Your task to perform on an android device: Search for seafood restaurants on Google Maps Image 0: 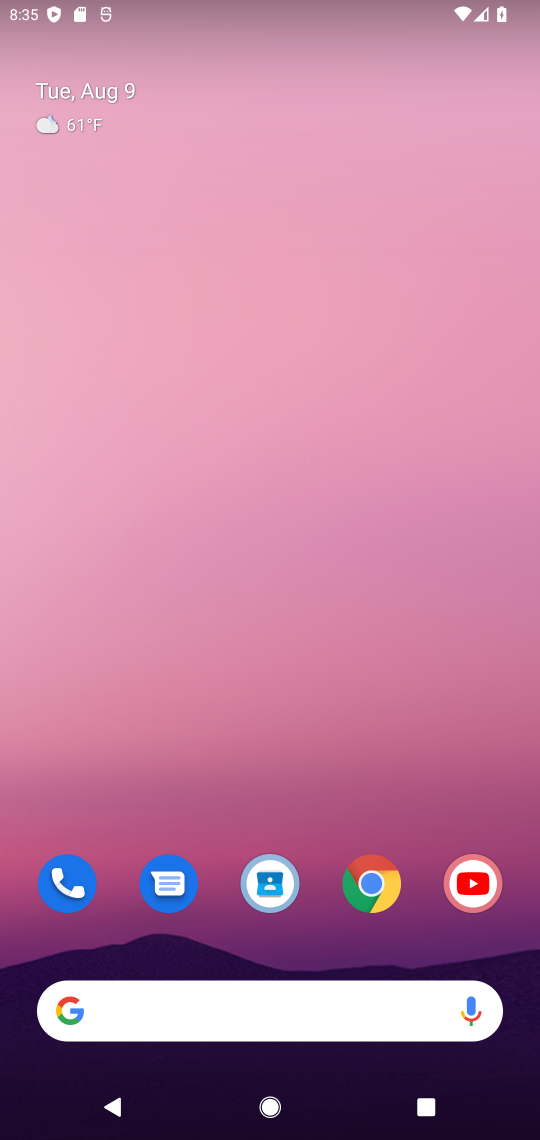
Step 0: drag from (387, 770) to (391, 58)
Your task to perform on an android device: Search for seafood restaurants on Google Maps Image 1: 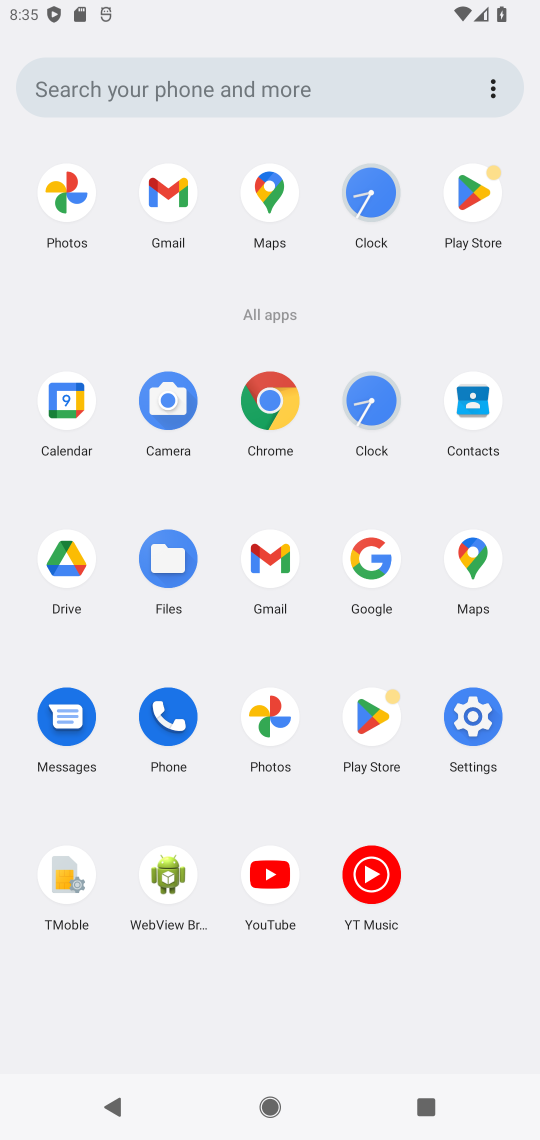
Step 1: click (465, 548)
Your task to perform on an android device: Search for seafood restaurants on Google Maps Image 2: 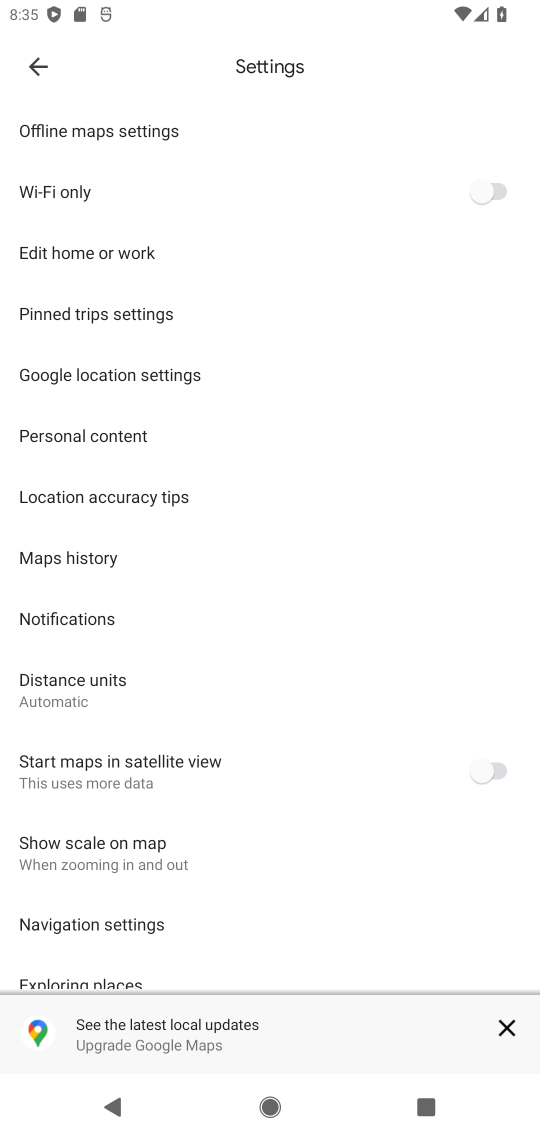
Step 2: press back button
Your task to perform on an android device: Search for seafood restaurants on Google Maps Image 3: 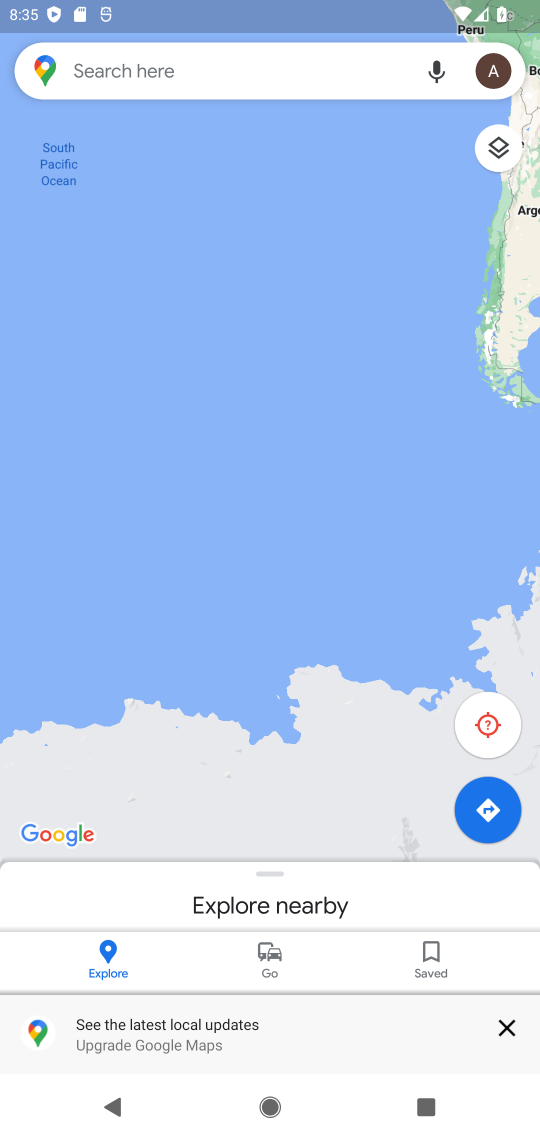
Step 3: click (289, 69)
Your task to perform on an android device: Search for seafood restaurants on Google Maps Image 4: 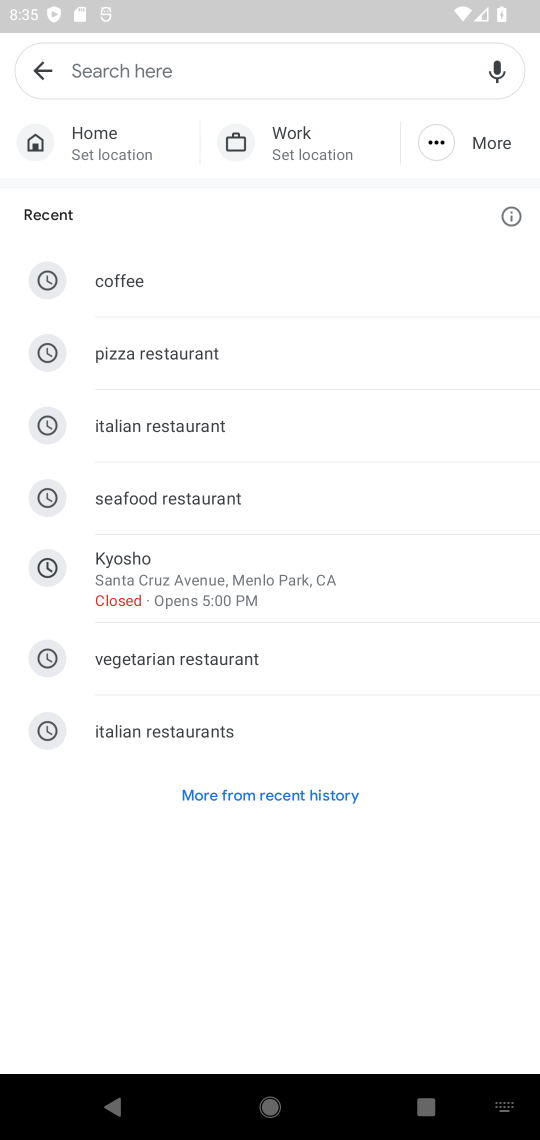
Step 4: type "seafood restaurants"
Your task to perform on an android device: Search for seafood restaurants on Google Maps Image 5: 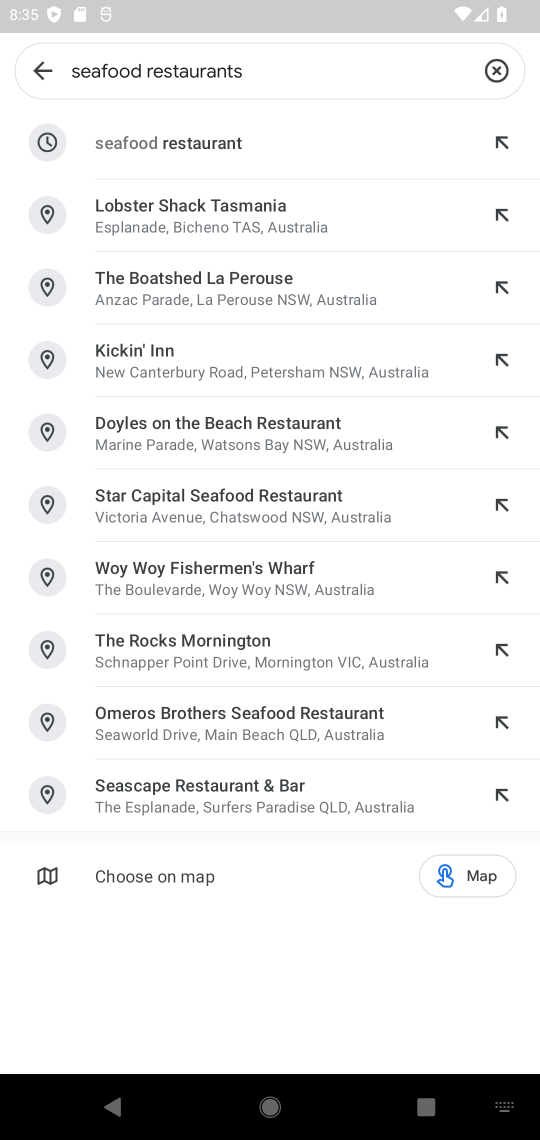
Step 5: press enter
Your task to perform on an android device: Search for seafood restaurants on Google Maps Image 6: 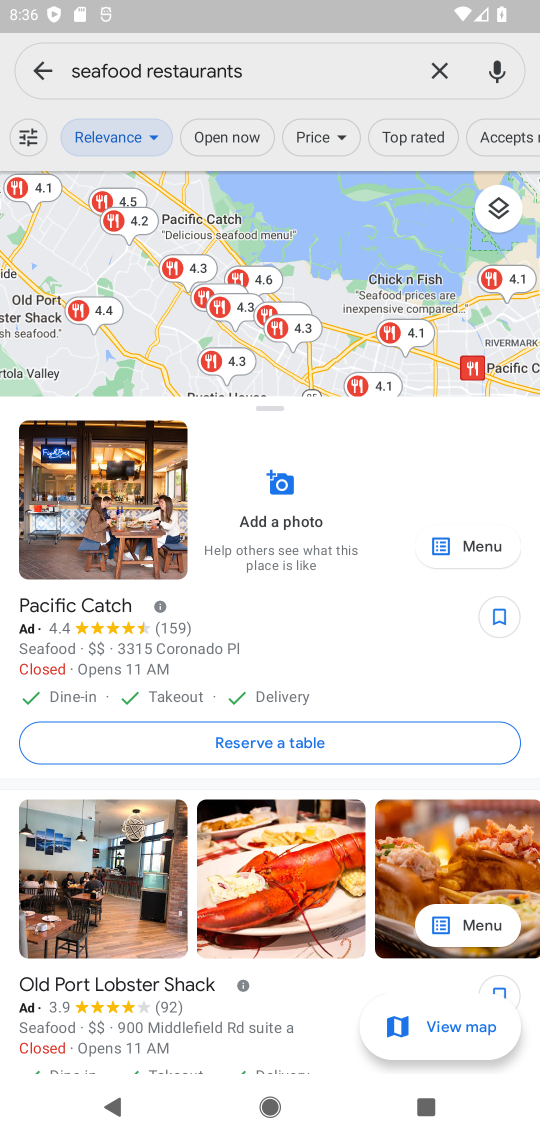
Step 6: task complete